Your task to perform on an android device: see sites visited before in the chrome app Image 0: 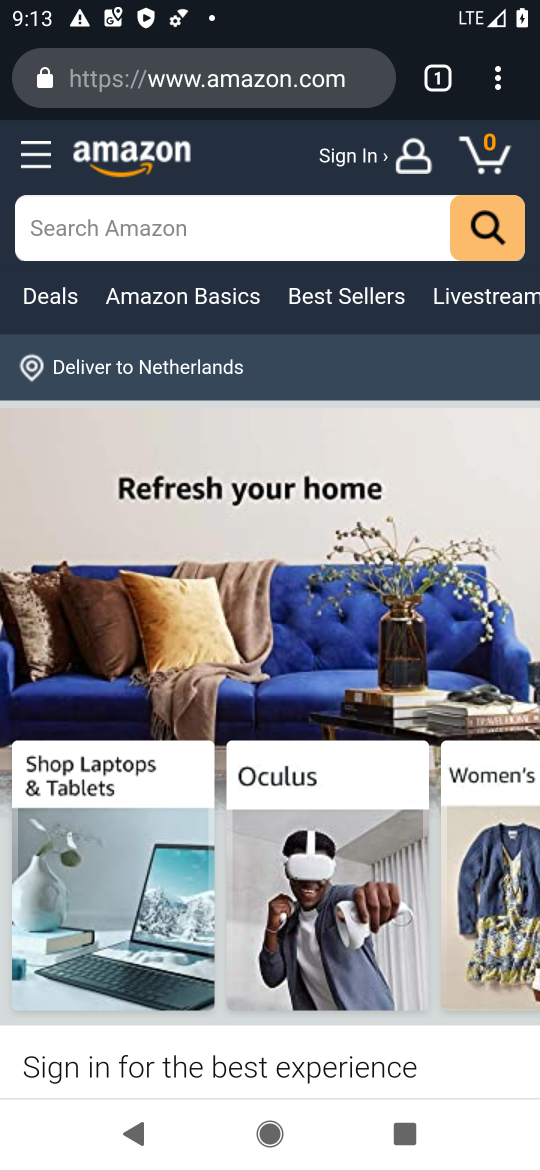
Step 0: click (493, 90)
Your task to perform on an android device: see sites visited before in the chrome app Image 1: 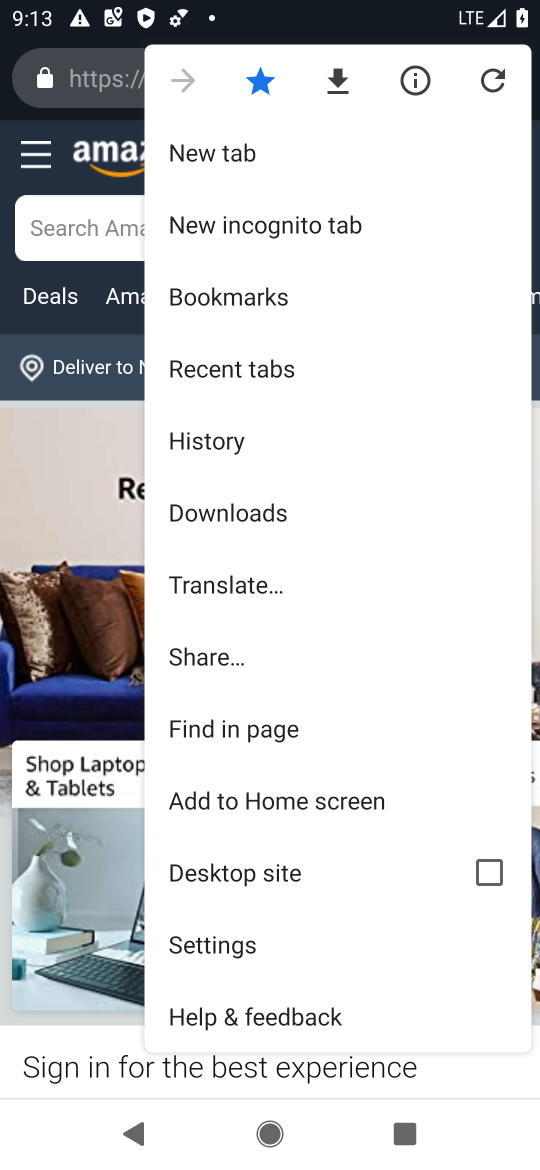
Step 1: click (207, 437)
Your task to perform on an android device: see sites visited before in the chrome app Image 2: 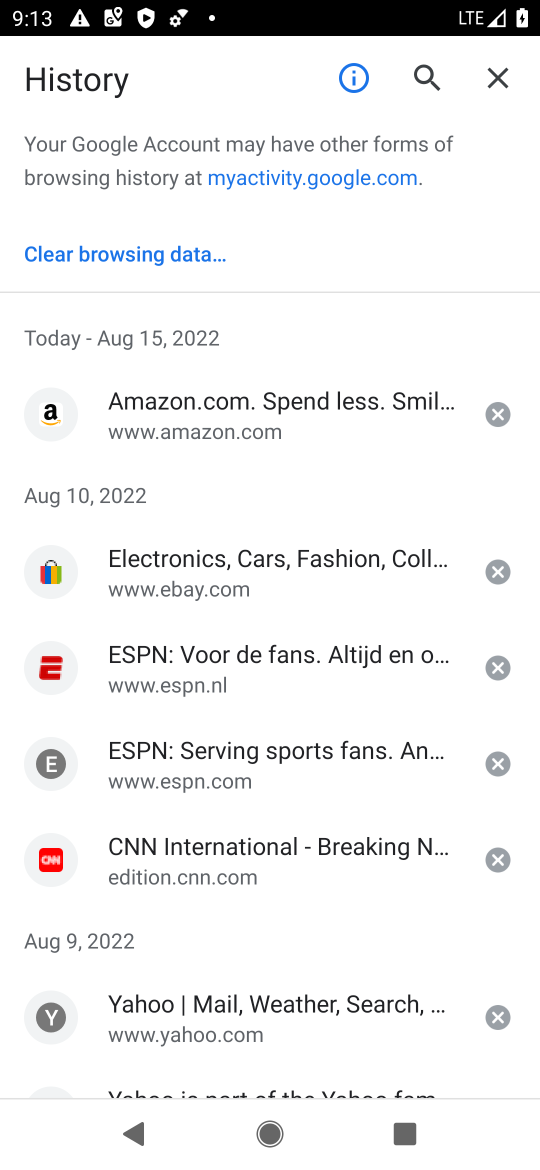
Step 2: task complete